Your task to perform on an android device: Open display settings Image 0: 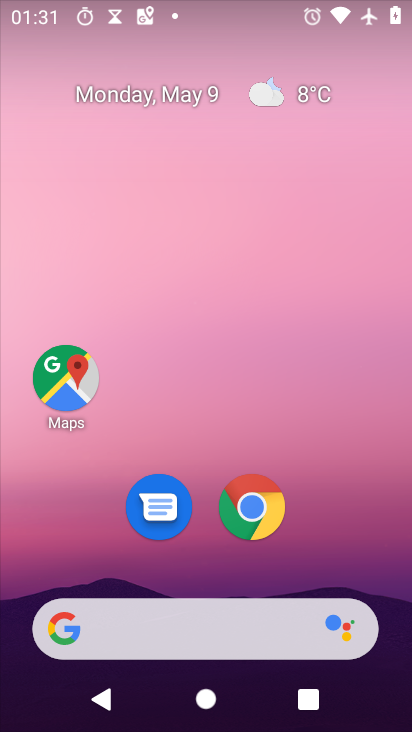
Step 0: drag from (219, 722) to (208, 230)
Your task to perform on an android device: Open display settings Image 1: 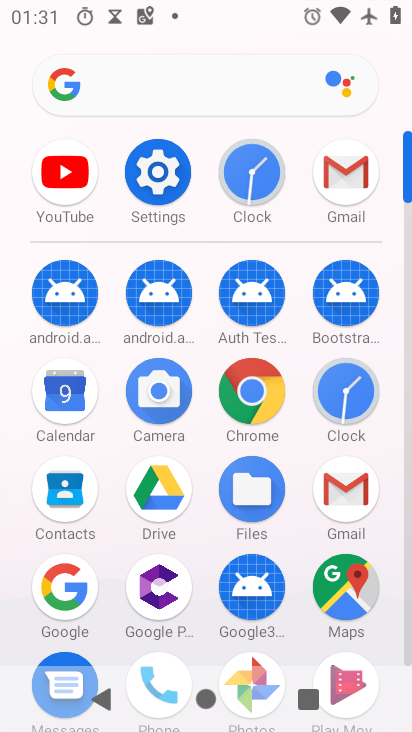
Step 1: click (158, 171)
Your task to perform on an android device: Open display settings Image 2: 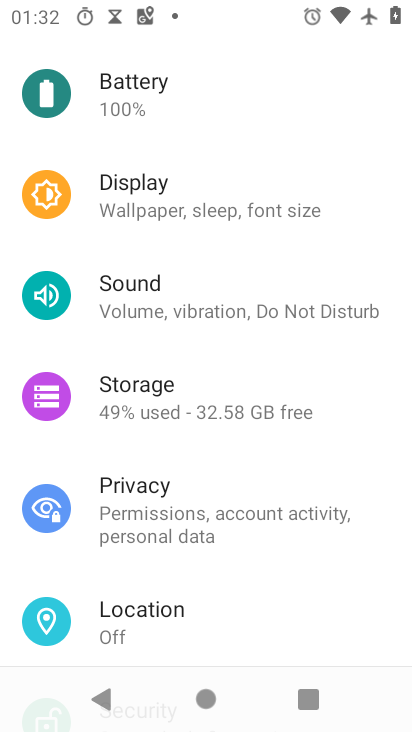
Step 2: click (148, 197)
Your task to perform on an android device: Open display settings Image 3: 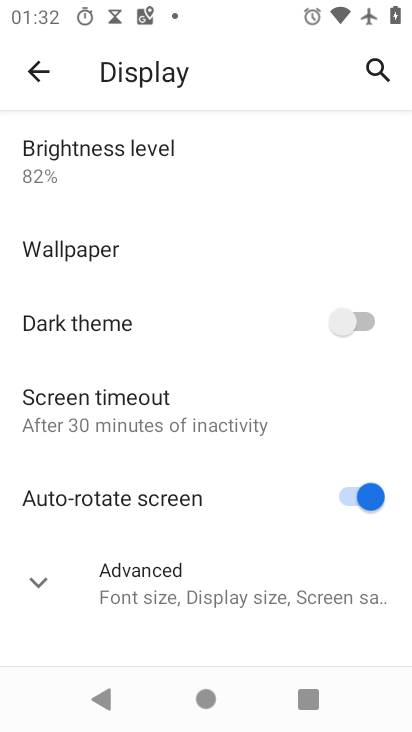
Step 3: task complete